Your task to perform on an android device: toggle wifi Image 0: 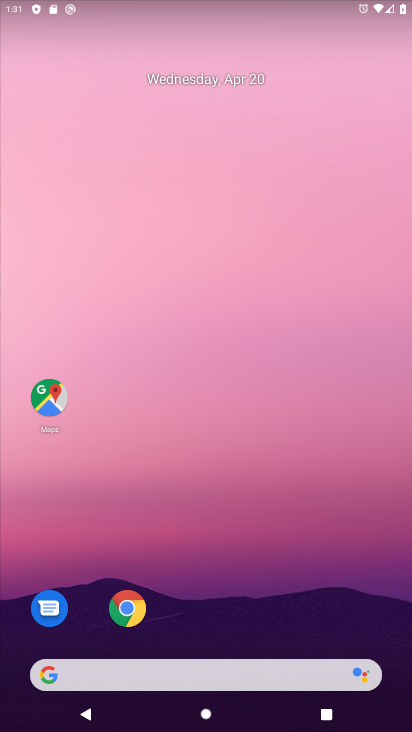
Step 0: drag from (210, 729) to (202, 89)
Your task to perform on an android device: toggle wifi Image 1: 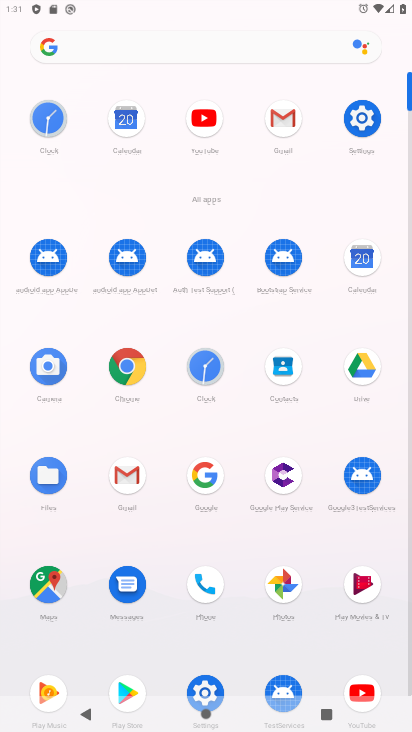
Step 1: click (361, 119)
Your task to perform on an android device: toggle wifi Image 2: 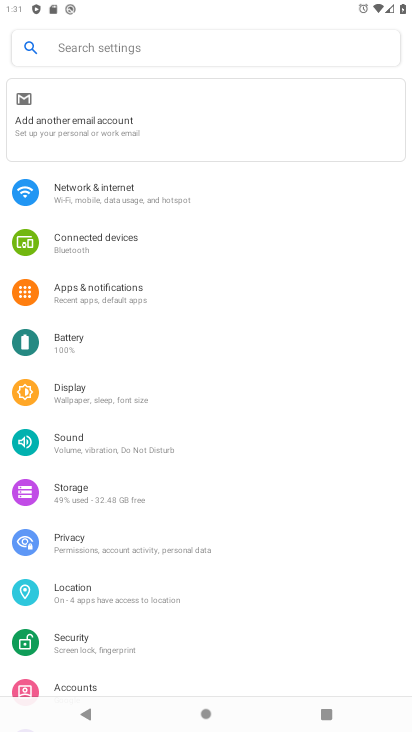
Step 2: click (97, 194)
Your task to perform on an android device: toggle wifi Image 3: 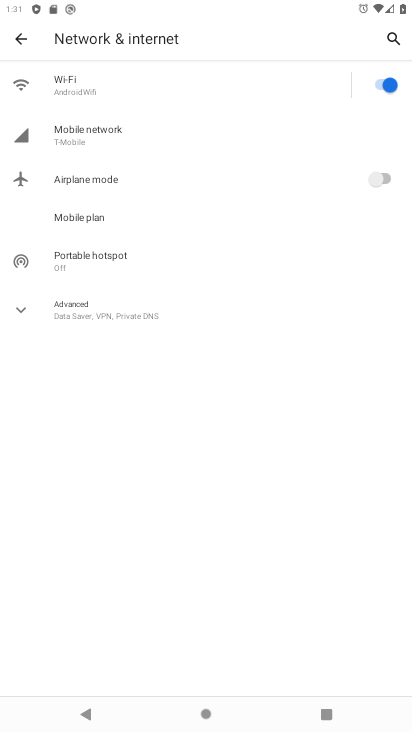
Step 3: click (379, 84)
Your task to perform on an android device: toggle wifi Image 4: 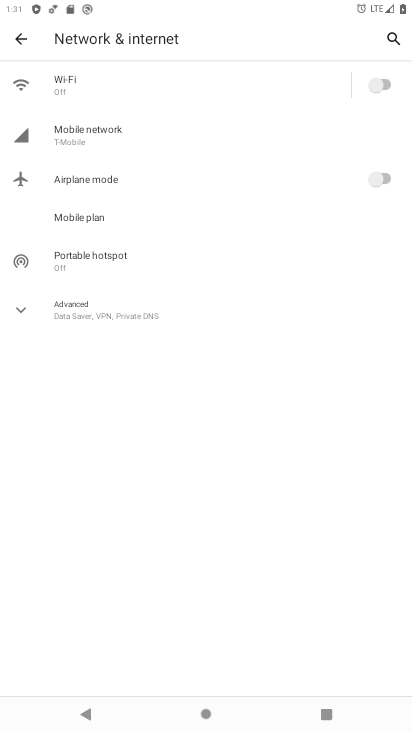
Step 4: task complete